Your task to perform on an android device: turn on data saver in the chrome app Image 0: 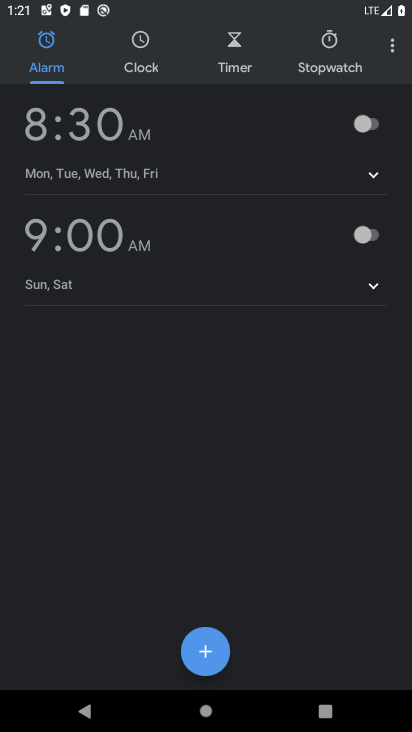
Step 0: press home button
Your task to perform on an android device: turn on data saver in the chrome app Image 1: 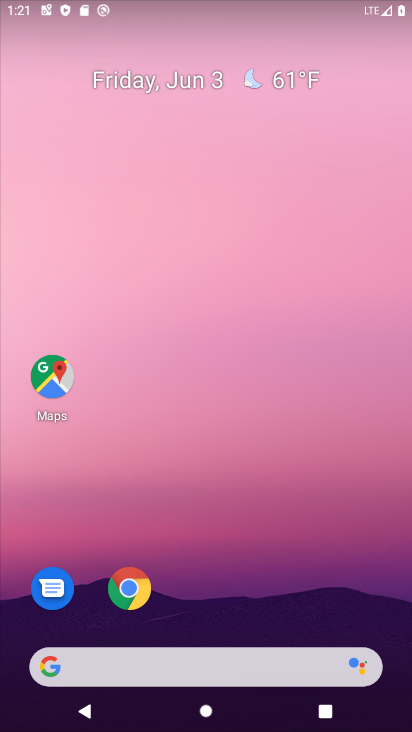
Step 1: drag from (251, 618) to (235, 192)
Your task to perform on an android device: turn on data saver in the chrome app Image 2: 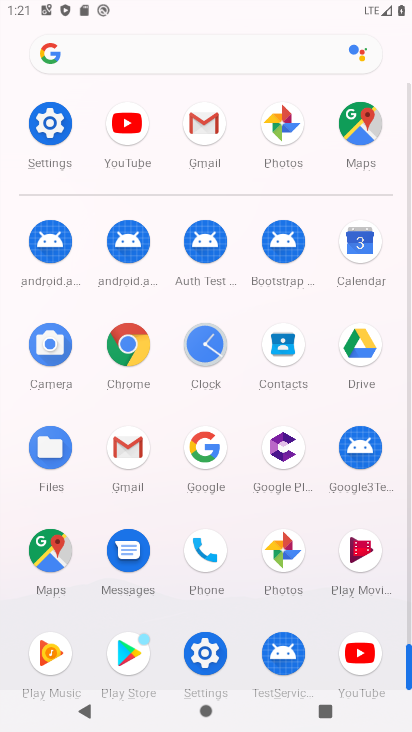
Step 2: click (124, 367)
Your task to perform on an android device: turn on data saver in the chrome app Image 3: 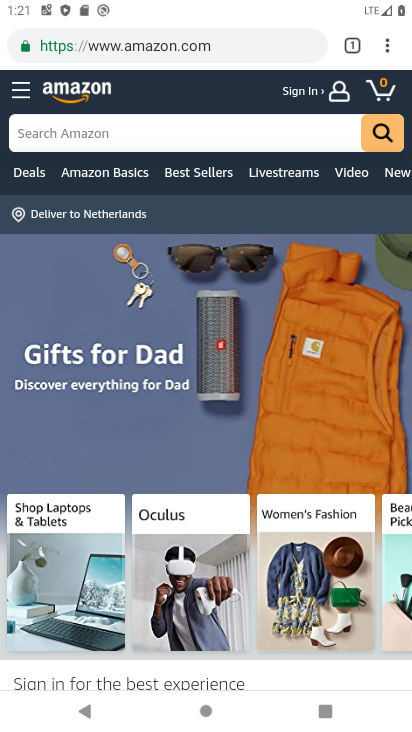
Step 3: click (383, 43)
Your task to perform on an android device: turn on data saver in the chrome app Image 4: 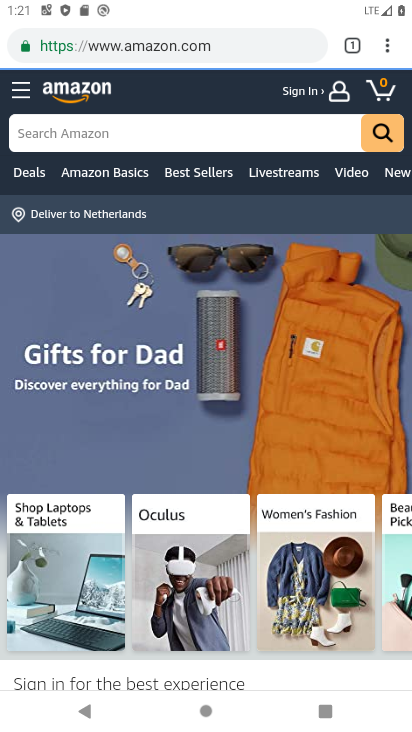
Step 4: click (392, 52)
Your task to perform on an android device: turn on data saver in the chrome app Image 5: 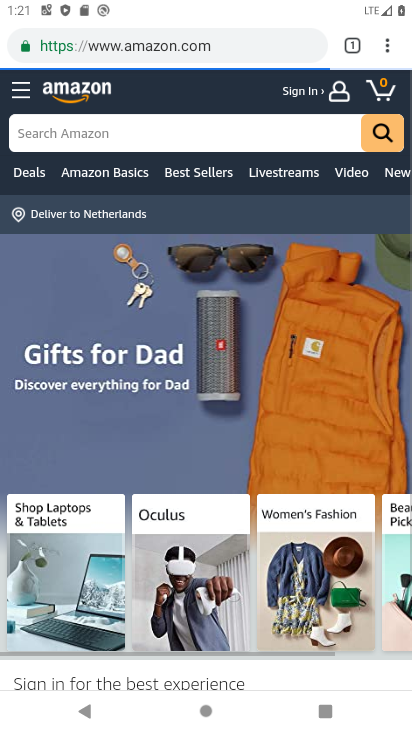
Step 5: click (384, 48)
Your task to perform on an android device: turn on data saver in the chrome app Image 6: 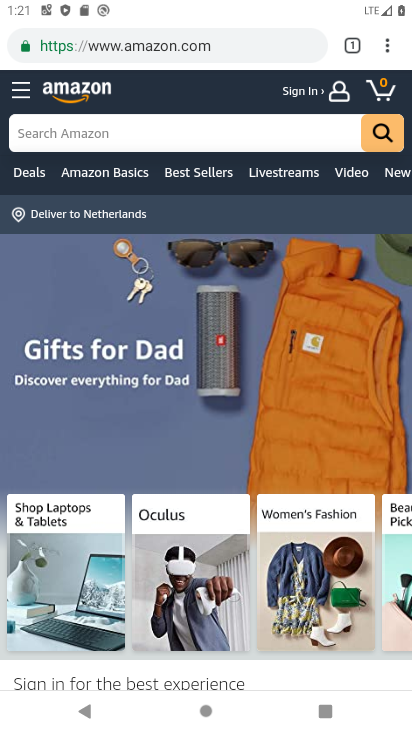
Step 6: click (391, 47)
Your task to perform on an android device: turn on data saver in the chrome app Image 7: 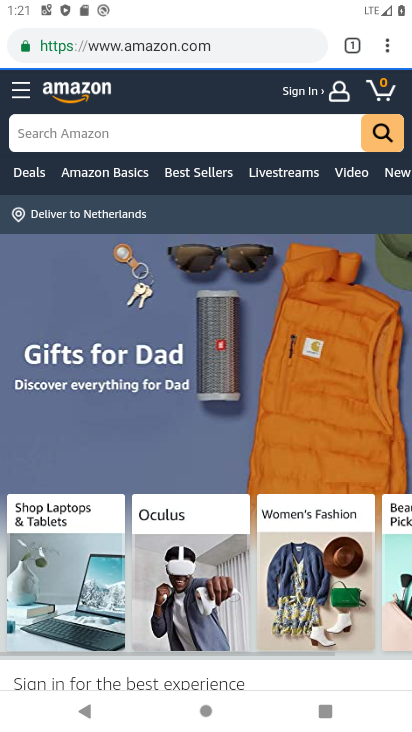
Step 7: click (391, 48)
Your task to perform on an android device: turn on data saver in the chrome app Image 8: 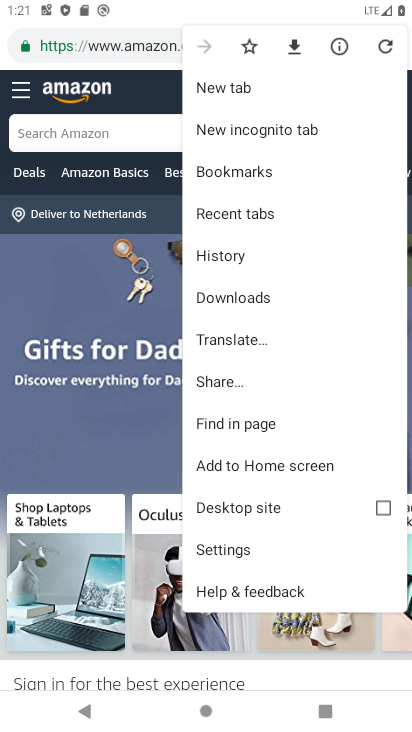
Step 8: click (249, 553)
Your task to perform on an android device: turn on data saver in the chrome app Image 9: 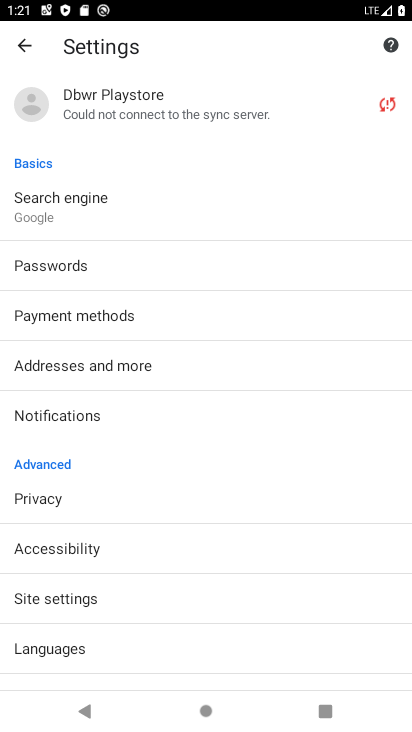
Step 9: drag from (217, 518) to (289, 276)
Your task to perform on an android device: turn on data saver in the chrome app Image 10: 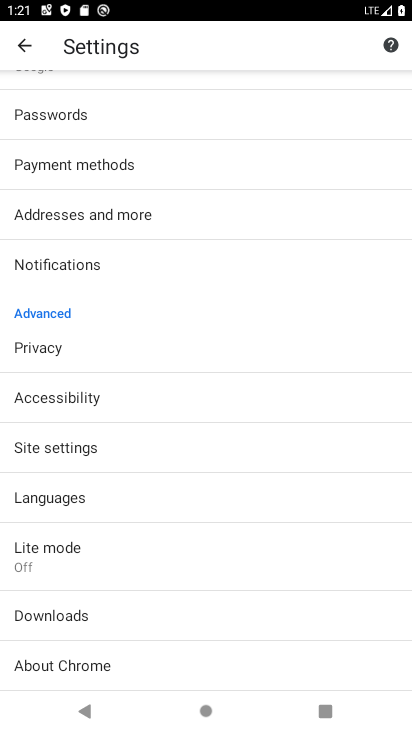
Step 10: click (95, 577)
Your task to perform on an android device: turn on data saver in the chrome app Image 11: 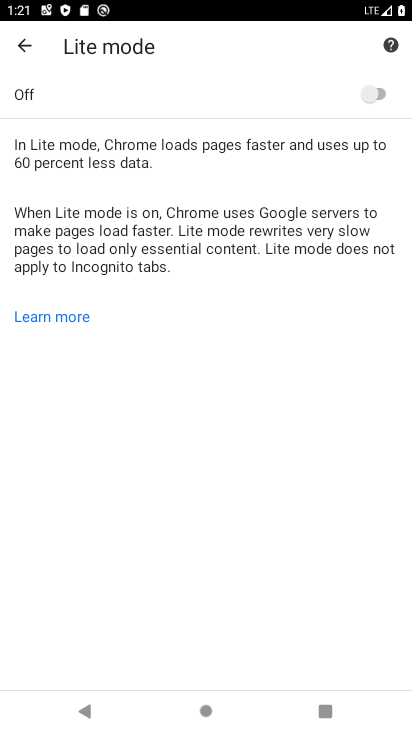
Step 11: click (364, 102)
Your task to perform on an android device: turn on data saver in the chrome app Image 12: 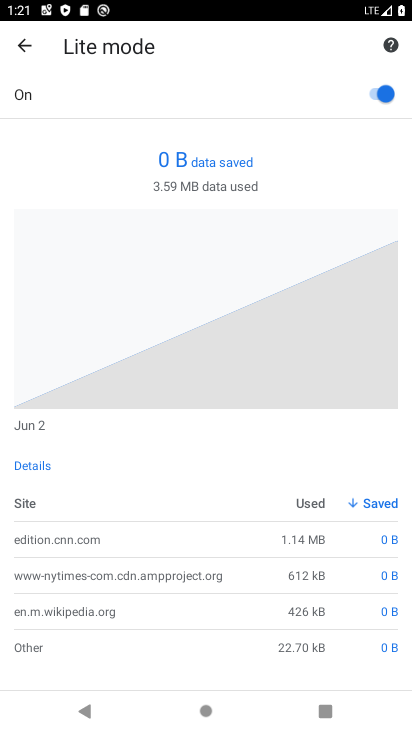
Step 12: task complete